Your task to perform on an android device: Turn on the flashlight Image 0: 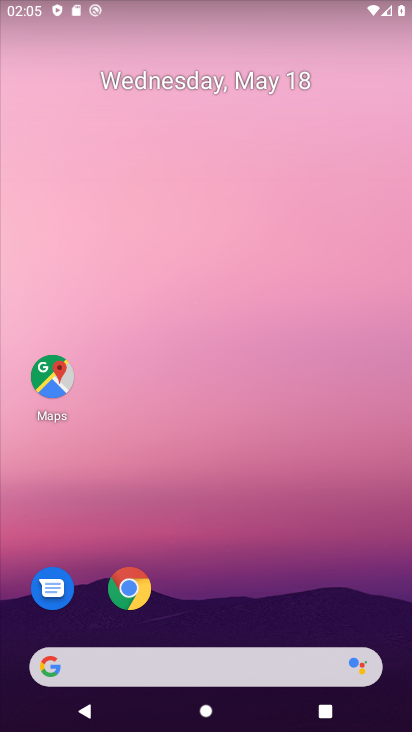
Step 0: task impossible